Your task to perform on an android device: turn on wifi Image 0: 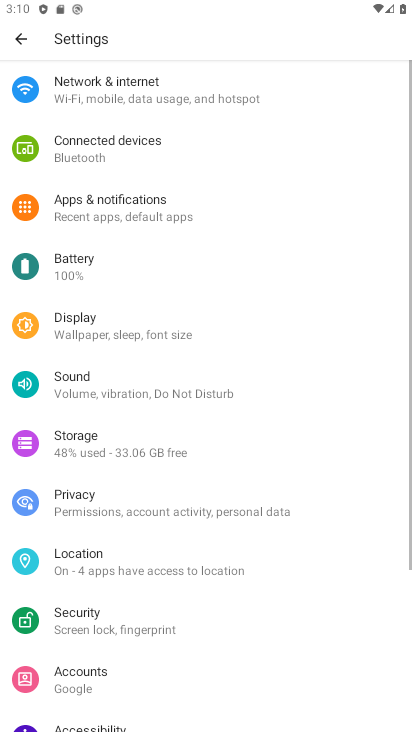
Step 0: drag from (169, 177) to (161, 448)
Your task to perform on an android device: turn on wifi Image 1: 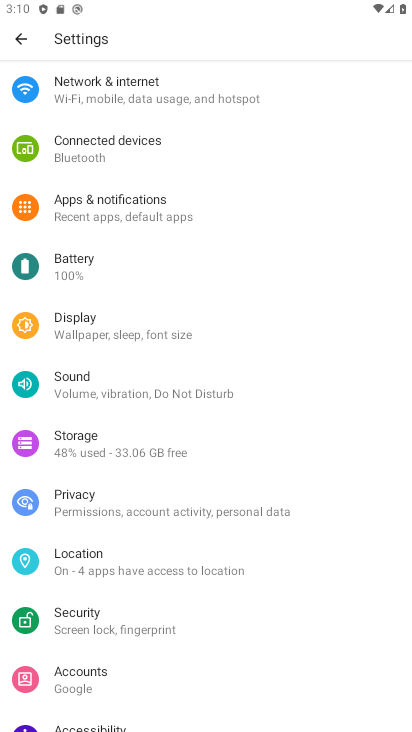
Step 1: click (134, 76)
Your task to perform on an android device: turn on wifi Image 2: 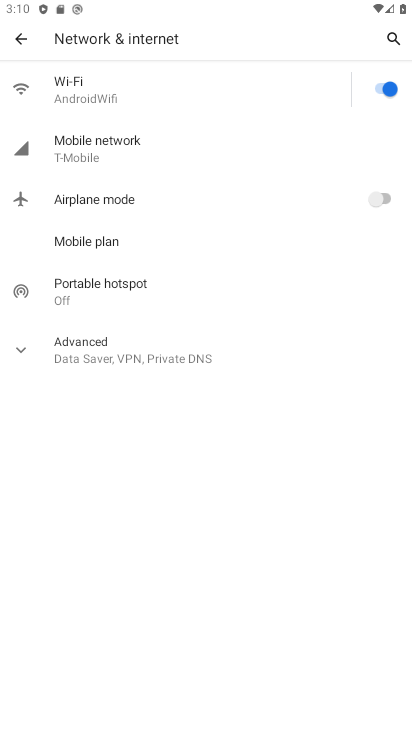
Step 2: task complete